Your task to perform on an android device: open the mobile data screen to see how much data has been used Image 0: 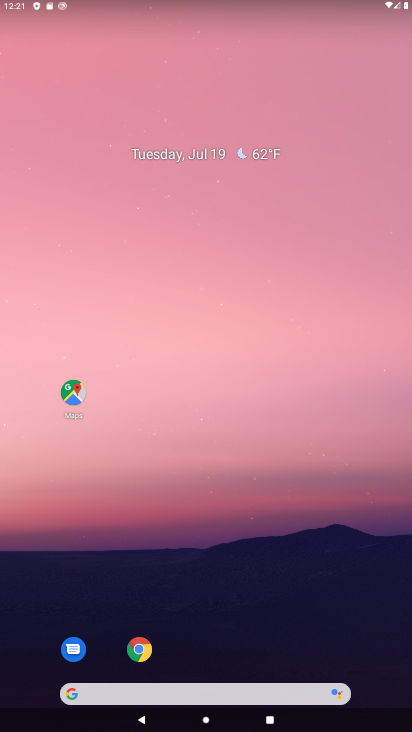
Step 0: drag from (219, 654) to (229, 183)
Your task to perform on an android device: open the mobile data screen to see how much data has been used Image 1: 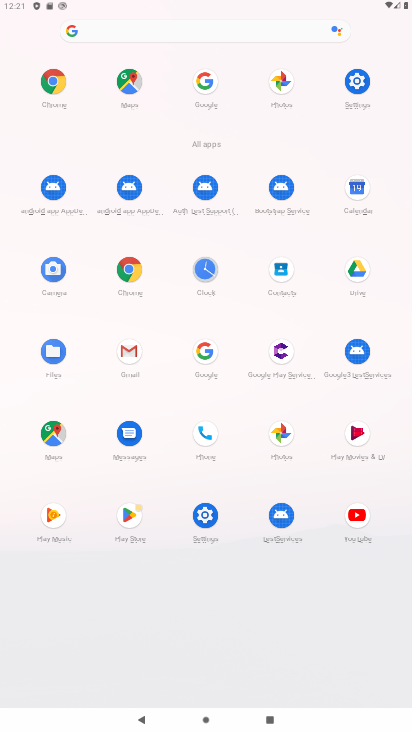
Step 1: click (206, 514)
Your task to perform on an android device: open the mobile data screen to see how much data has been used Image 2: 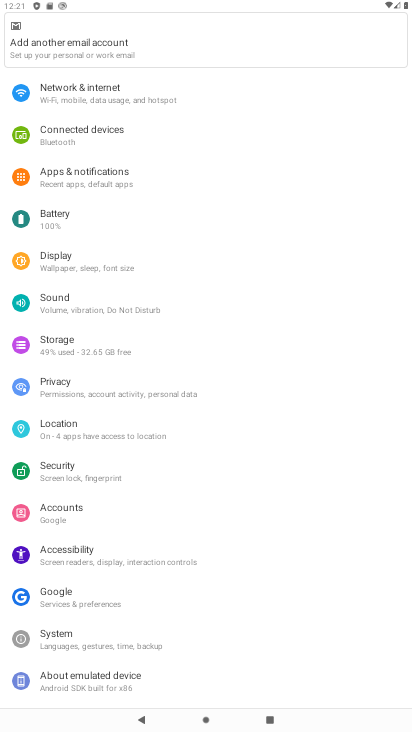
Step 2: click (103, 94)
Your task to perform on an android device: open the mobile data screen to see how much data has been used Image 3: 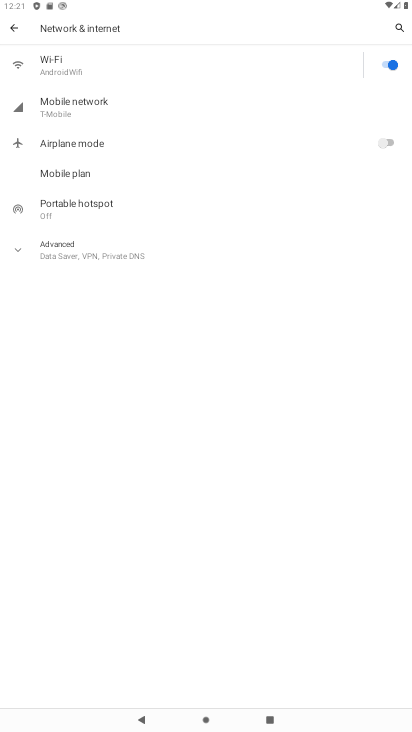
Step 3: click (94, 106)
Your task to perform on an android device: open the mobile data screen to see how much data has been used Image 4: 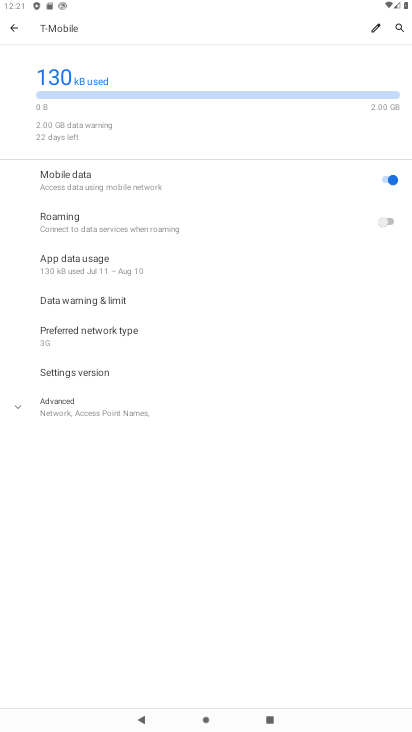
Step 4: task complete